Your task to perform on an android device: open device folders in google photos Image 0: 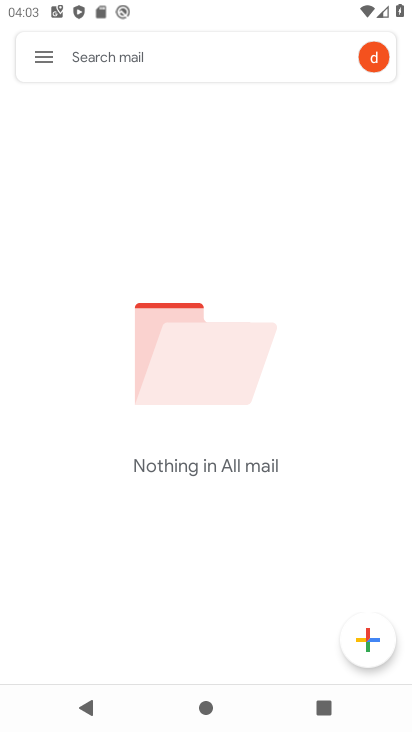
Step 0: press home button
Your task to perform on an android device: open device folders in google photos Image 1: 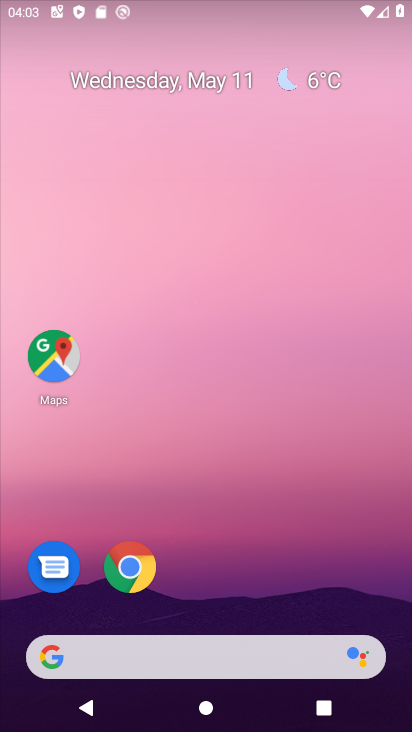
Step 1: drag from (251, 599) to (221, 182)
Your task to perform on an android device: open device folders in google photos Image 2: 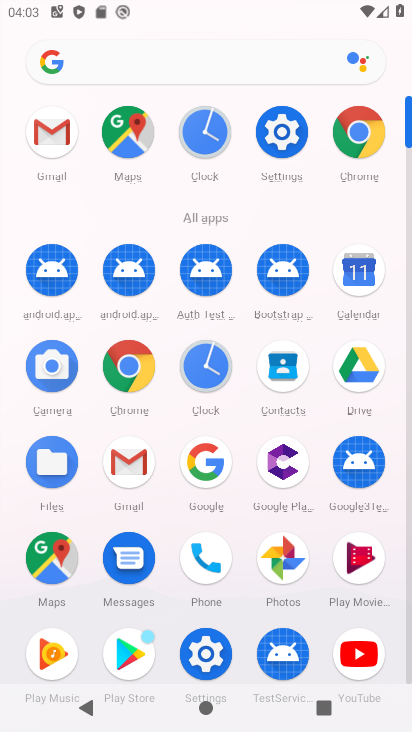
Step 2: click (289, 547)
Your task to perform on an android device: open device folders in google photos Image 3: 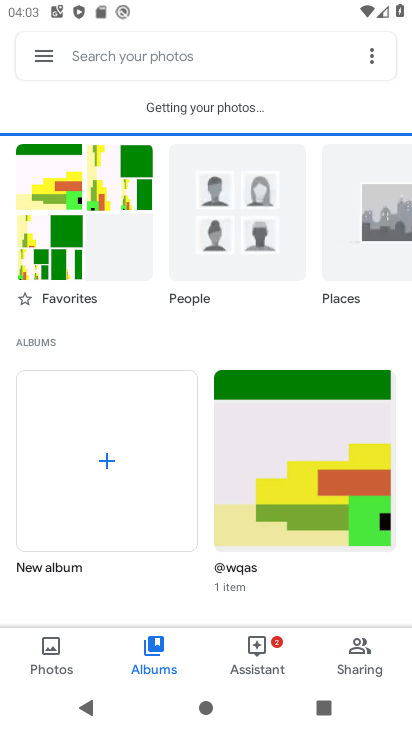
Step 3: click (62, 171)
Your task to perform on an android device: open device folders in google photos Image 4: 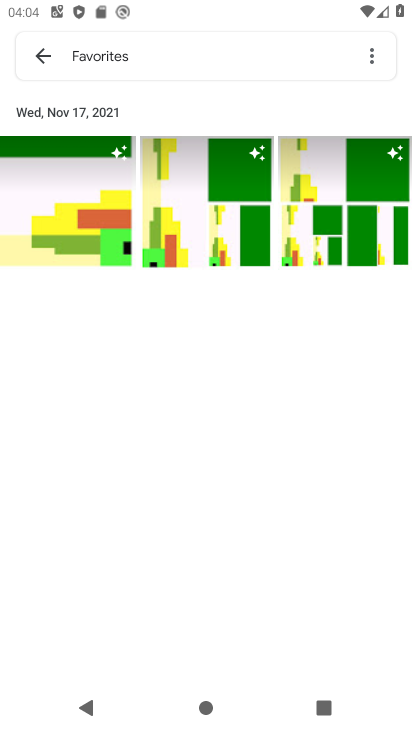
Step 4: task complete